Your task to perform on an android device: Go to battery settings Image 0: 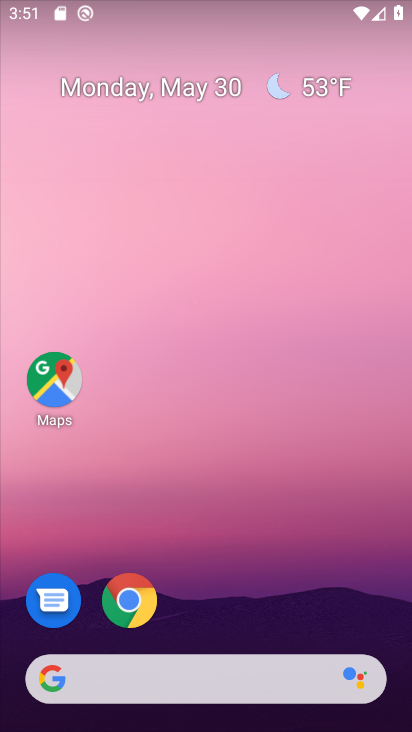
Step 0: drag from (297, 564) to (402, 65)
Your task to perform on an android device: Go to battery settings Image 1: 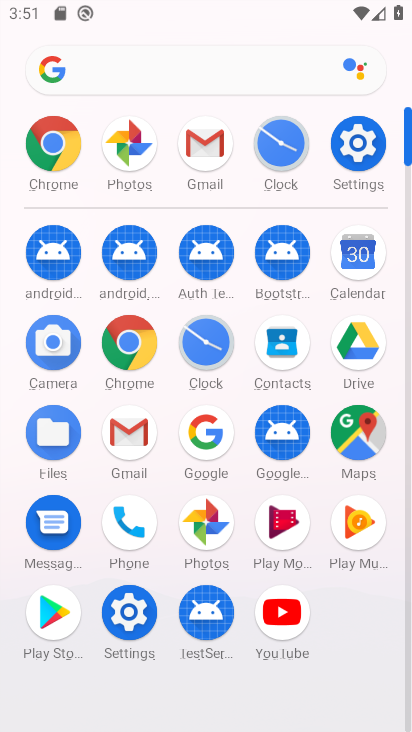
Step 1: click (378, 140)
Your task to perform on an android device: Go to battery settings Image 2: 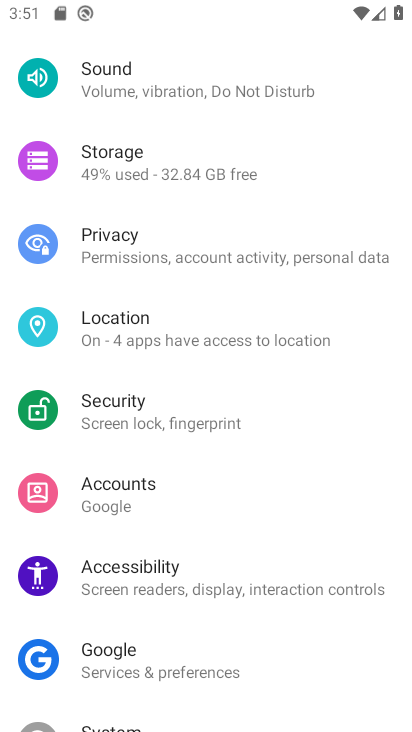
Step 2: click (100, 604)
Your task to perform on an android device: Go to battery settings Image 3: 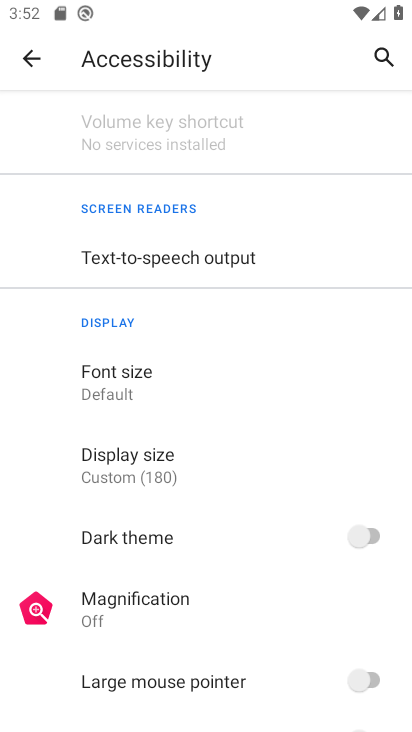
Step 3: click (26, 70)
Your task to perform on an android device: Go to battery settings Image 4: 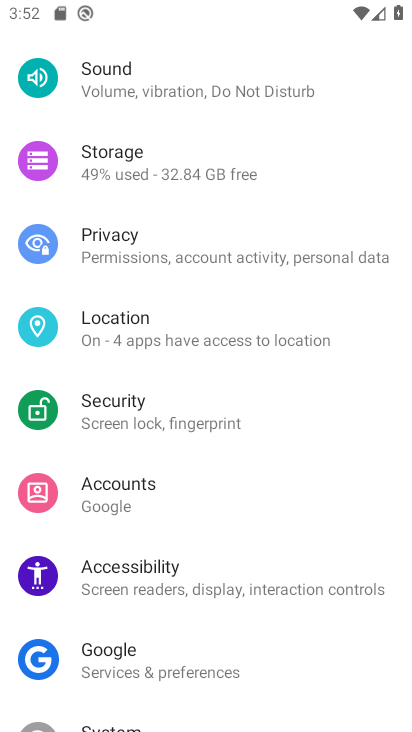
Step 4: drag from (256, 284) to (292, 19)
Your task to perform on an android device: Go to battery settings Image 5: 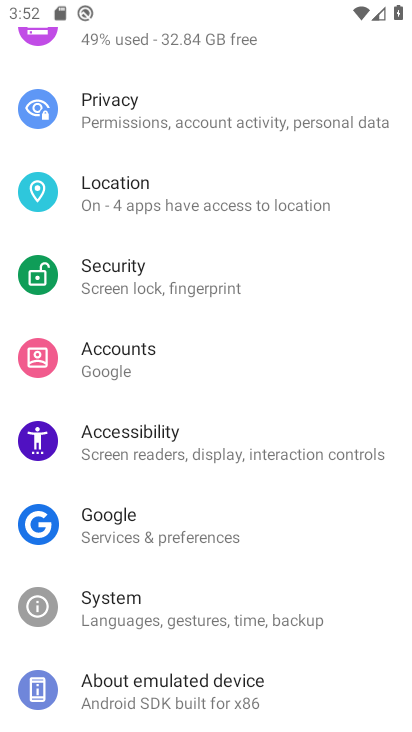
Step 5: drag from (177, 152) to (164, 581)
Your task to perform on an android device: Go to battery settings Image 6: 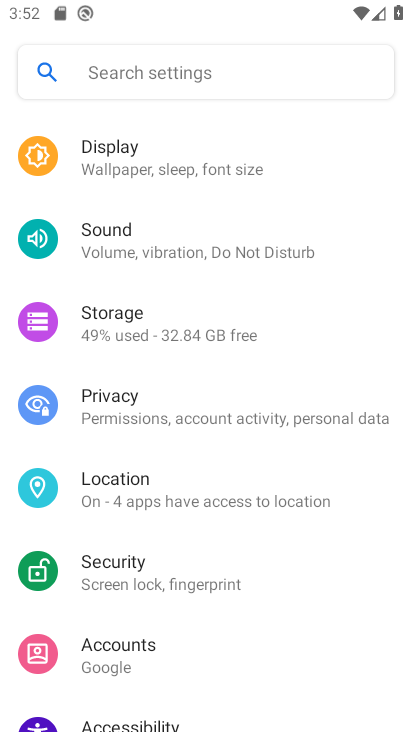
Step 6: drag from (260, 134) to (254, 653)
Your task to perform on an android device: Go to battery settings Image 7: 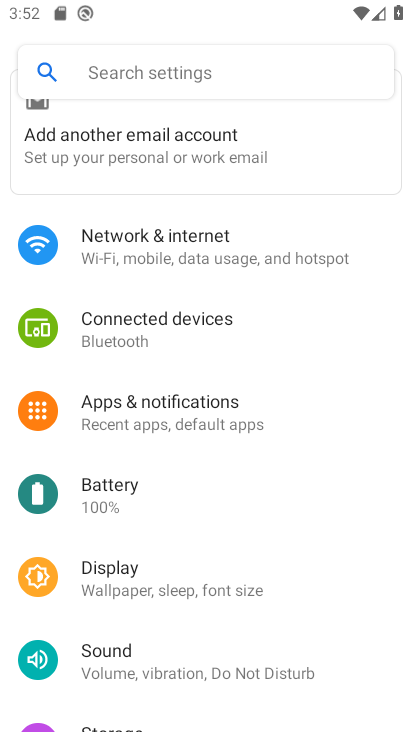
Step 7: drag from (201, 552) to (297, 162)
Your task to perform on an android device: Go to battery settings Image 8: 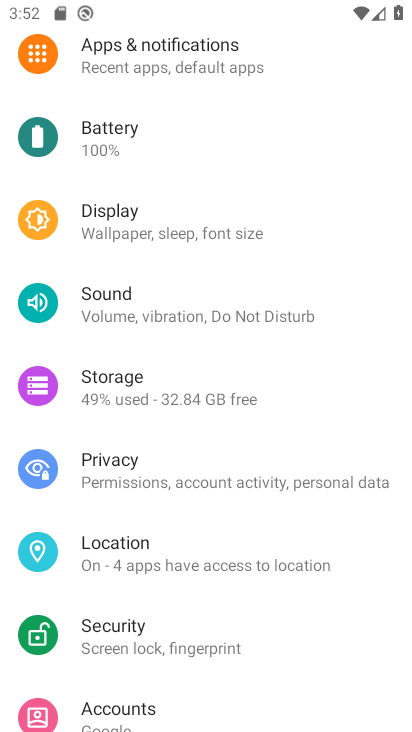
Step 8: drag from (175, 587) to (246, 179)
Your task to perform on an android device: Go to battery settings Image 9: 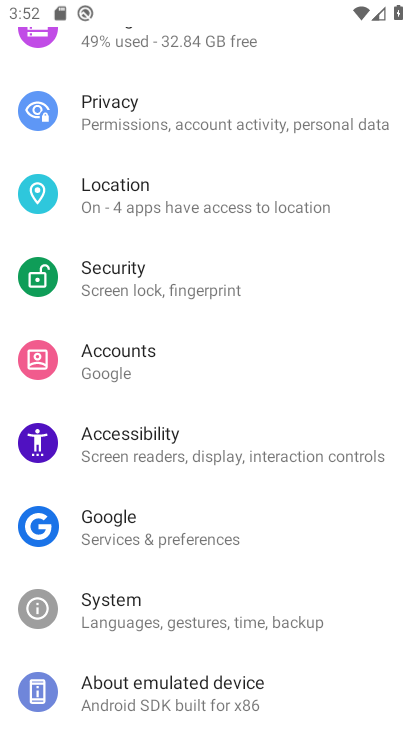
Step 9: drag from (157, 593) to (156, 207)
Your task to perform on an android device: Go to battery settings Image 10: 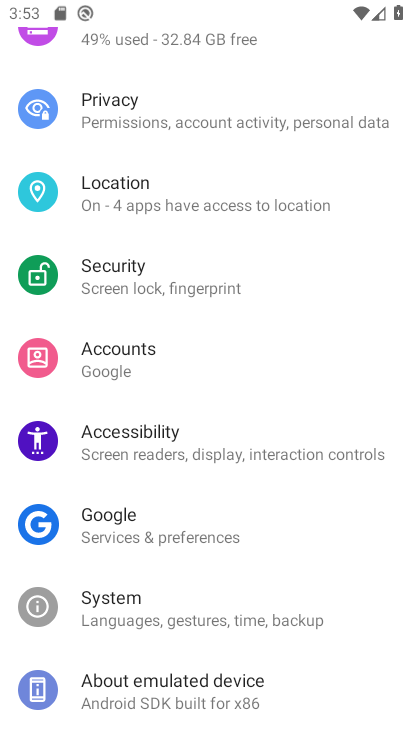
Step 10: drag from (179, 241) to (200, 660)
Your task to perform on an android device: Go to battery settings Image 11: 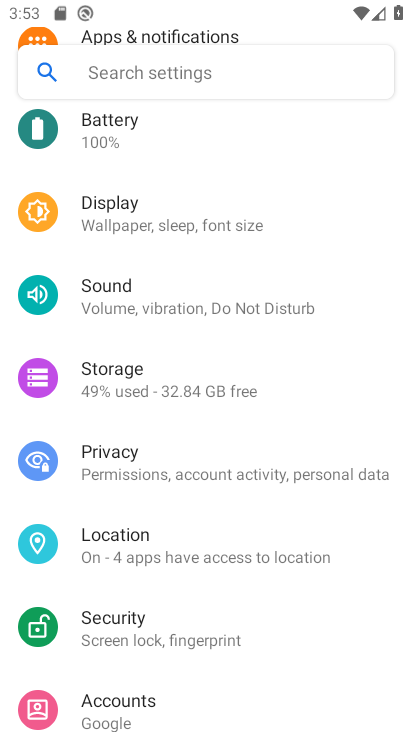
Step 11: click (113, 141)
Your task to perform on an android device: Go to battery settings Image 12: 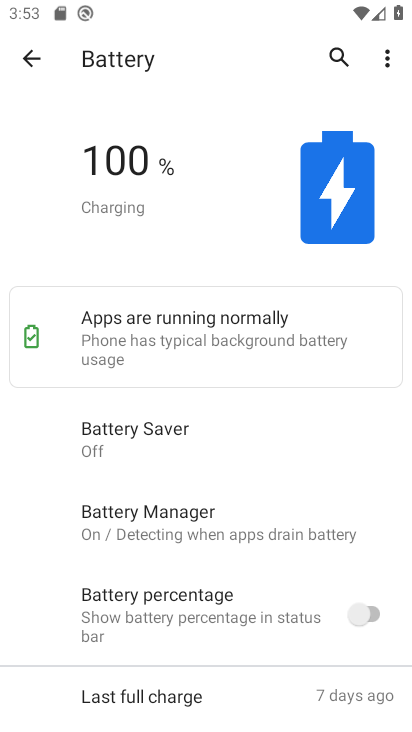
Step 12: task complete